Your task to perform on an android device: add a contact in the contacts app Image 0: 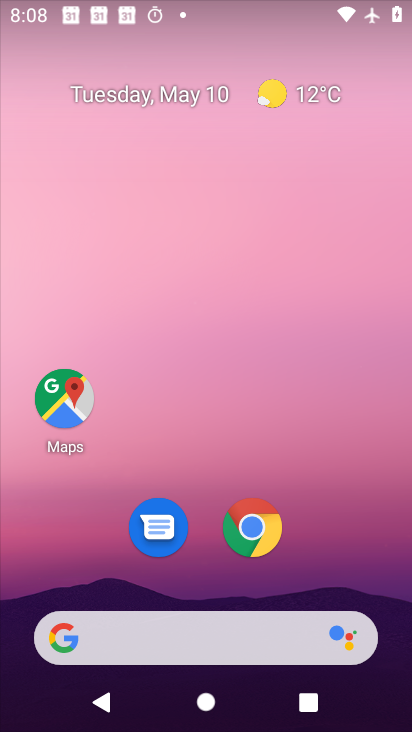
Step 0: drag from (239, 576) to (274, 154)
Your task to perform on an android device: add a contact in the contacts app Image 1: 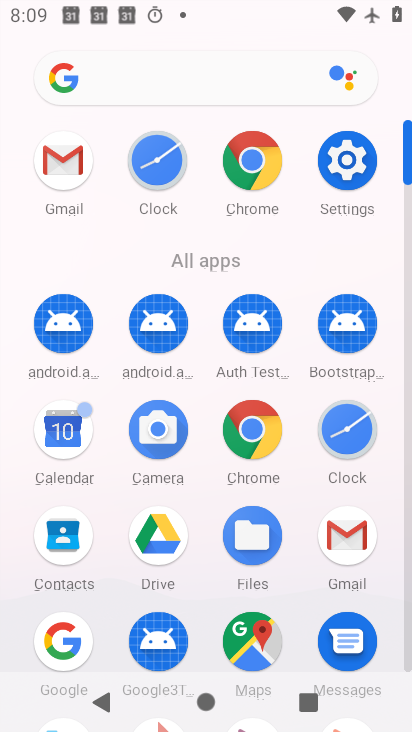
Step 1: drag from (298, 581) to (329, 514)
Your task to perform on an android device: add a contact in the contacts app Image 2: 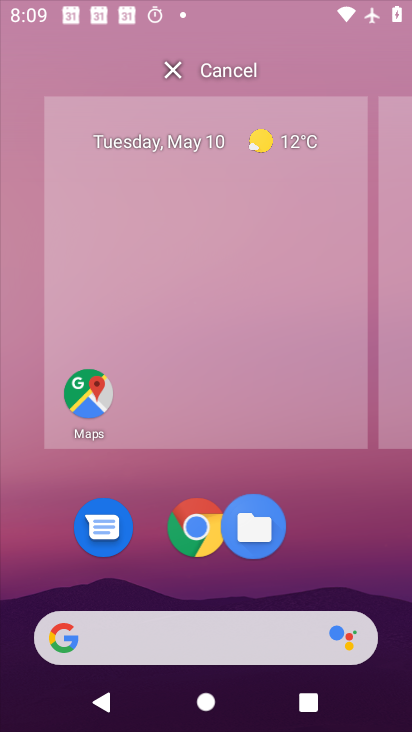
Step 2: drag from (343, 460) to (343, 243)
Your task to perform on an android device: add a contact in the contacts app Image 3: 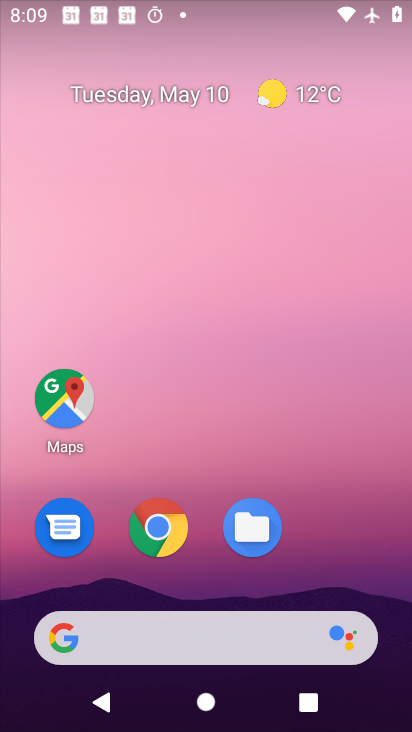
Step 3: drag from (333, 316) to (336, 147)
Your task to perform on an android device: add a contact in the contacts app Image 4: 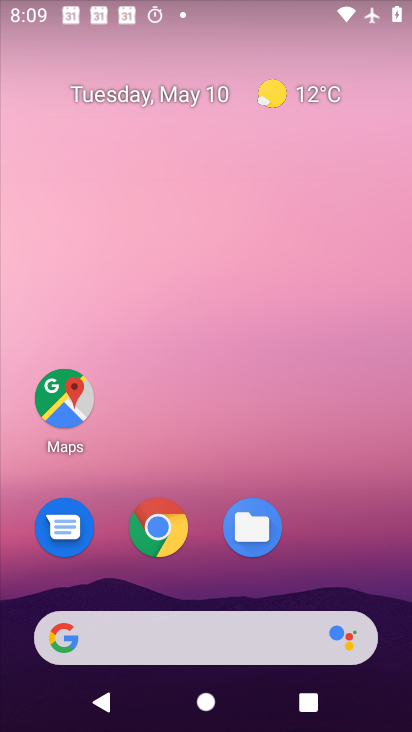
Step 4: drag from (286, 562) to (298, 77)
Your task to perform on an android device: add a contact in the contacts app Image 5: 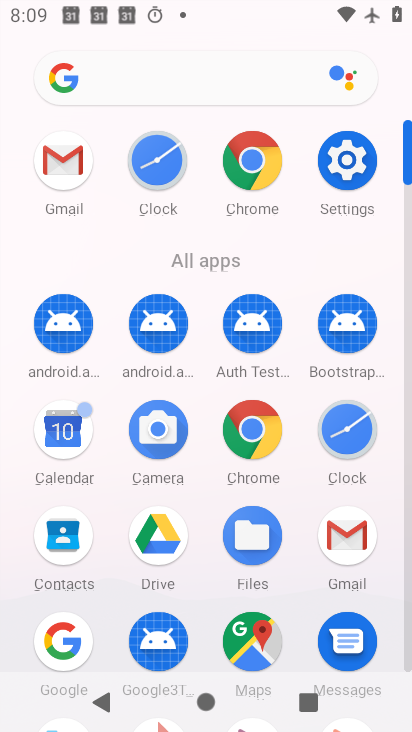
Step 5: click (71, 554)
Your task to perform on an android device: add a contact in the contacts app Image 6: 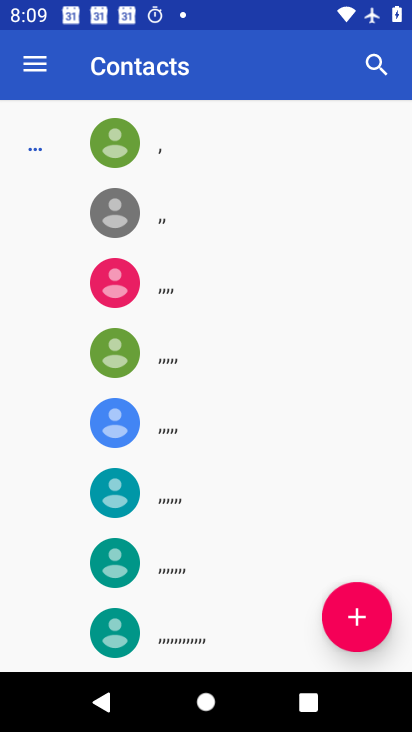
Step 6: click (356, 626)
Your task to perform on an android device: add a contact in the contacts app Image 7: 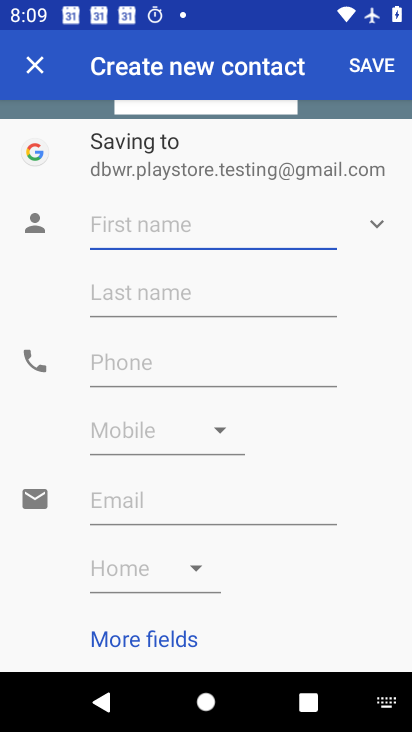
Step 7: click (267, 230)
Your task to perform on an android device: add a contact in the contacts app Image 8: 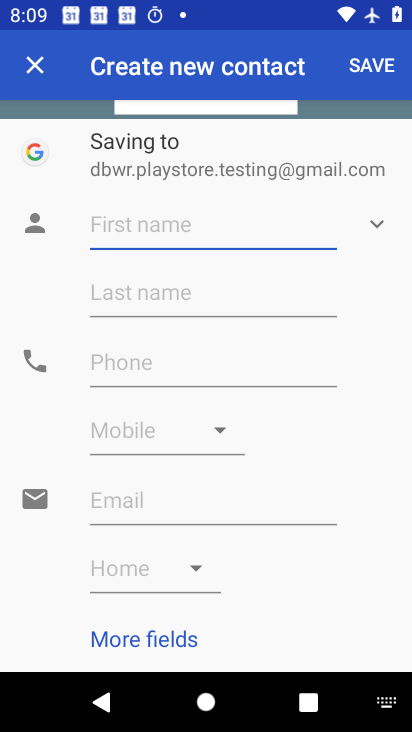
Step 8: type "contact 34"
Your task to perform on an android device: add a contact in the contacts app Image 9: 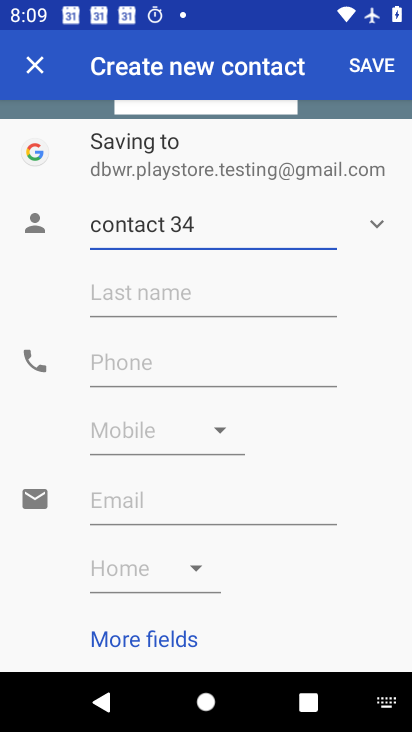
Step 9: click (157, 364)
Your task to perform on an android device: add a contact in the contacts app Image 10: 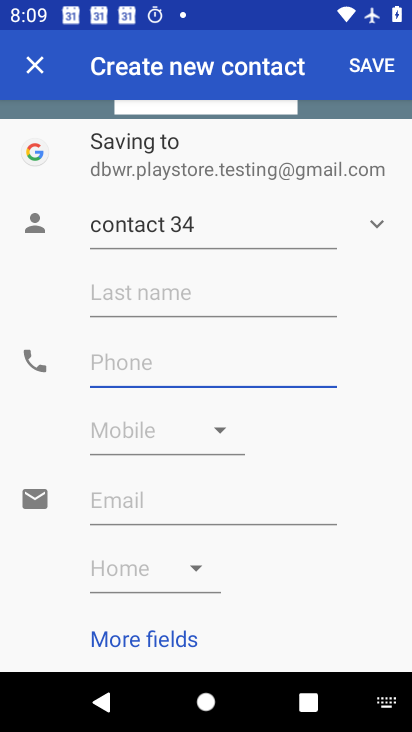
Step 10: type "65655465777"
Your task to perform on an android device: add a contact in the contacts app Image 11: 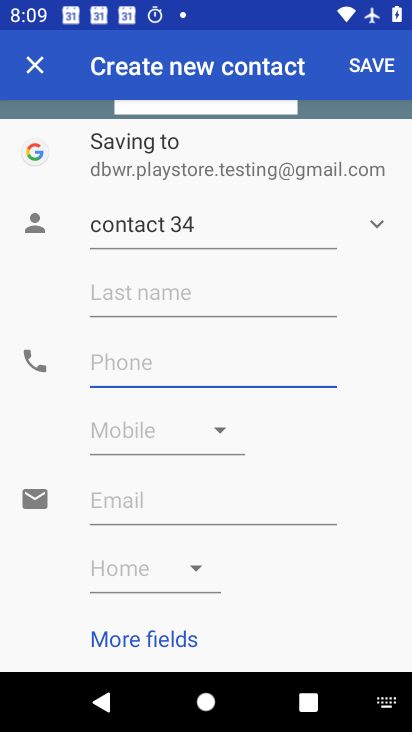
Step 11: drag from (390, 221) to (366, 77)
Your task to perform on an android device: add a contact in the contacts app Image 12: 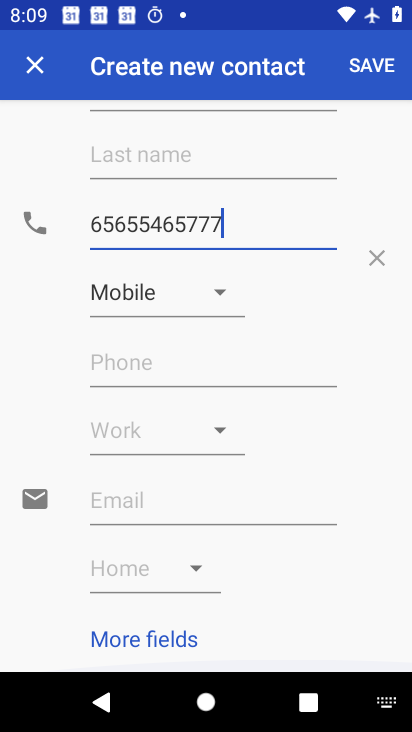
Step 12: click (366, 77)
Your task to perform on an android device: add a contact in the contacts app Image 13: 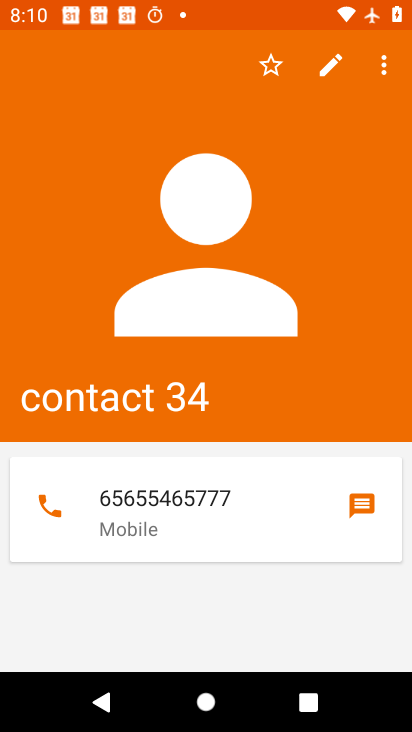
Step 13: task complete